Your task to perform on an android device: add a contact in the contacts app Image 0: 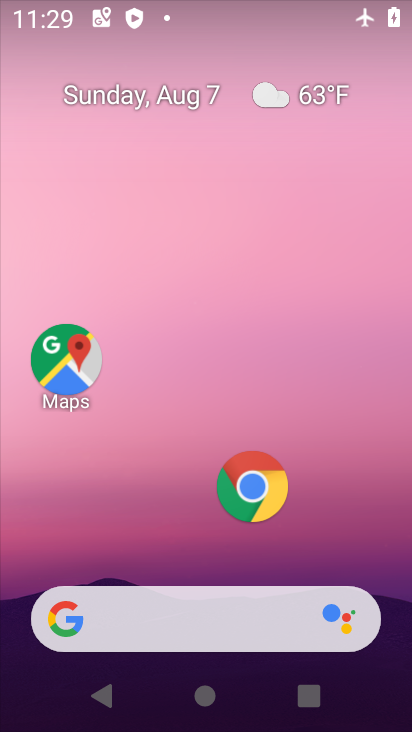
Step 0: drag from (128, 684) to (297, 1)
Your task to perform on an android device: add a contact in the contacts app Image 1: 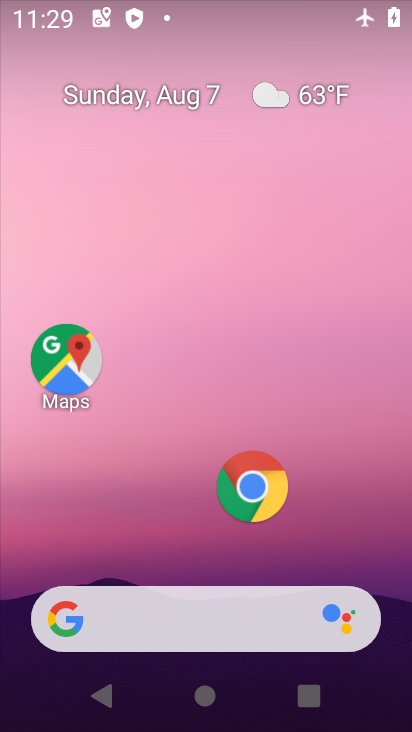
Step 1: drag from (282, 691) to (262, 147)
Your task to perform on an android device: add a contact in the contacts app Image 2: 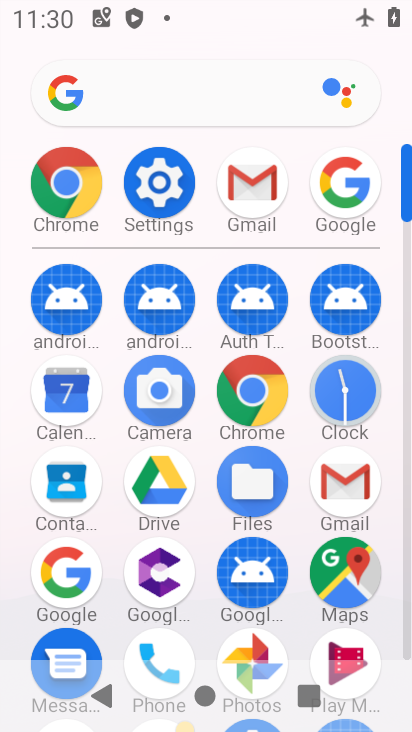
Step 2: click (56, 491)
Your task to perform on an android device: add a contact in the contacts app Image 3: 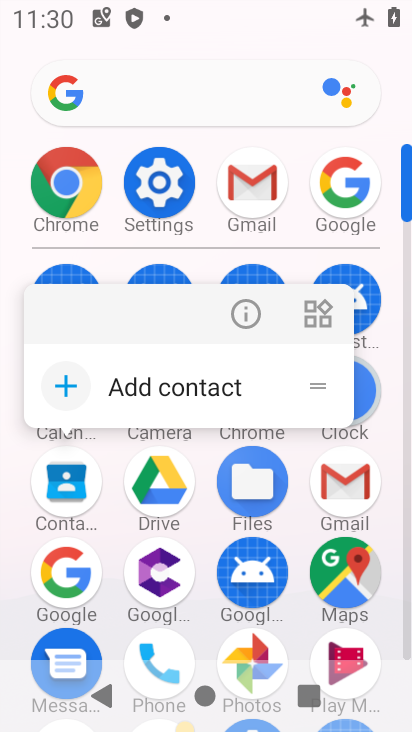
Step 3: click (77, 503)
Your task to perform on an android device: add a contact in the contacts app Image 4: 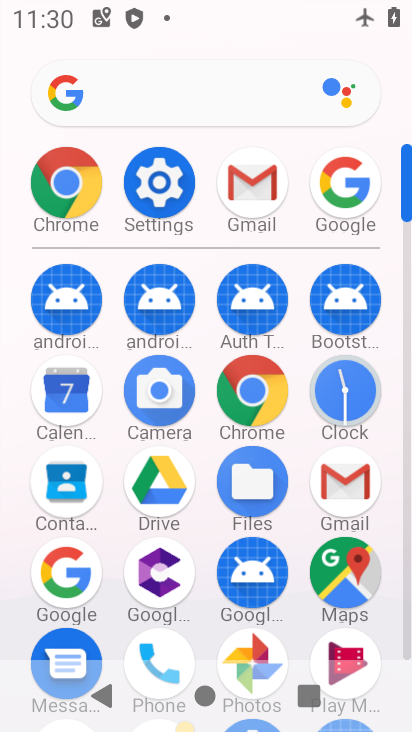
Step 4: click (77, 503)
Your task to perform on an android device: add a contact in the contacts app Image 5: 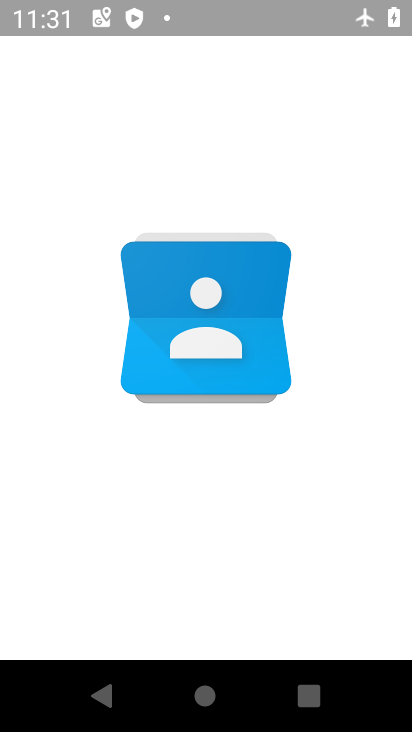
Step 5: task complete